Your task to perform on an android device: toggle translation in the chrome app Image 0: 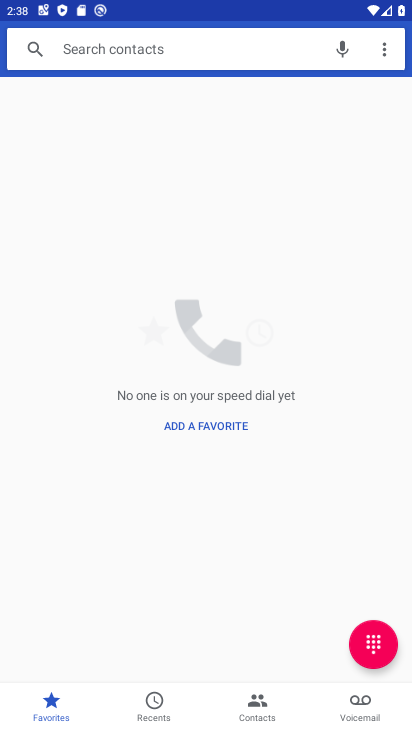
Step 0: press home button
Your task to perform on an android device: toggle translation in the chrome app Image 1: 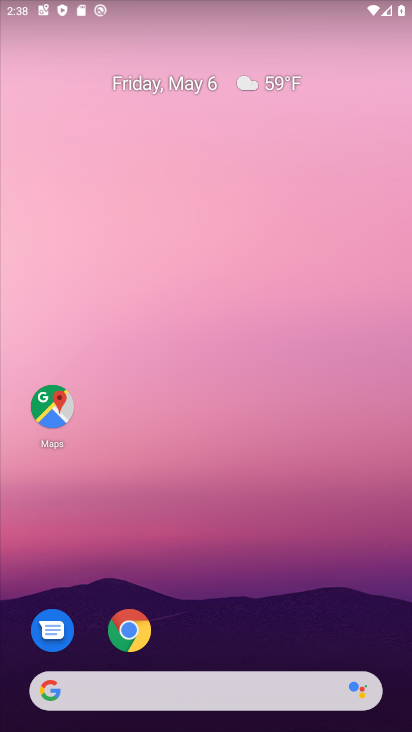
Step 1: click (126, 630)
Your task to perform on an android device: toggle translation in the chrome app Image 2: 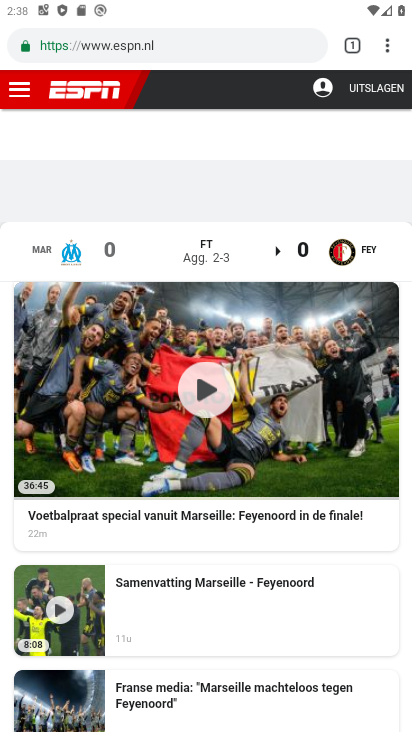
Step 2: click (386, 48)
Your task to perform on an android device: toggle translation in the chrome app Image 3: 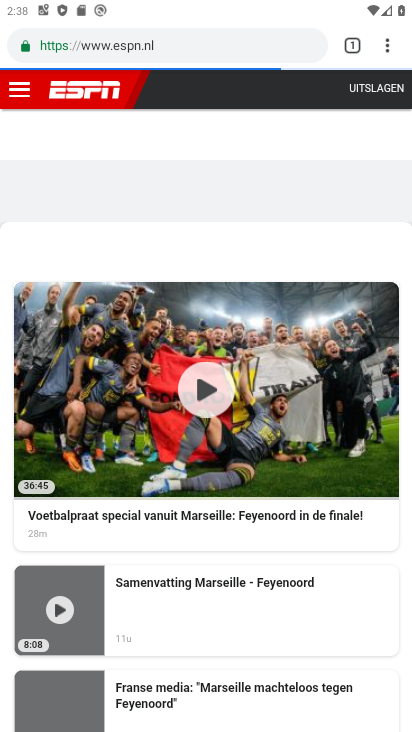
Step 3: click (389, 43)
Your task to perform on an android device: toggle translation in the chrome app Image 4: 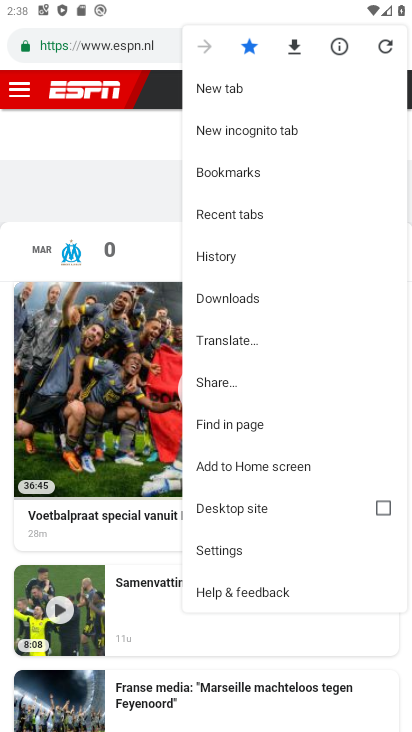
Step 4: click (246, 544)
Your task to perform on an android device: toggle translation in the chrome app Image 5: 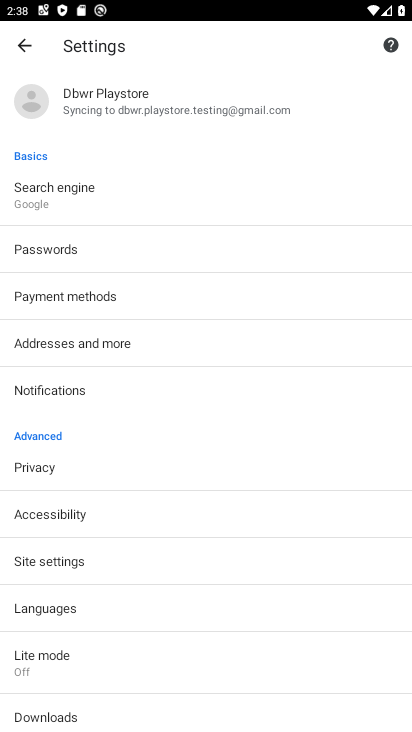
Step 5: click (97, 603)
Your task to perform on an android device: toggle translation in the chrome app Image 6: 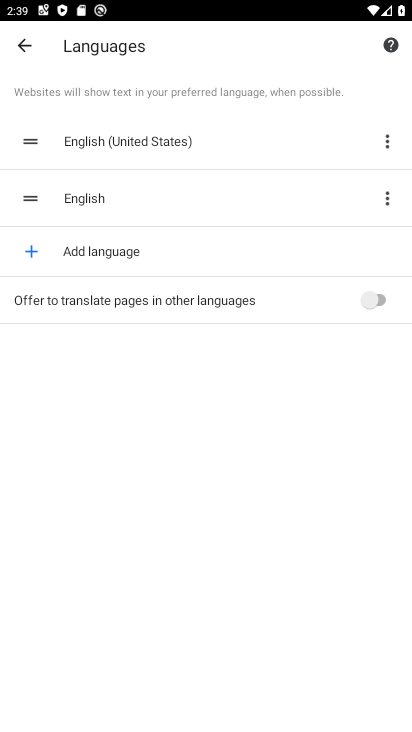
Step 6: click (379, 295)
Your task to perform on an android device: toggle translation in the chrome app Image 7: 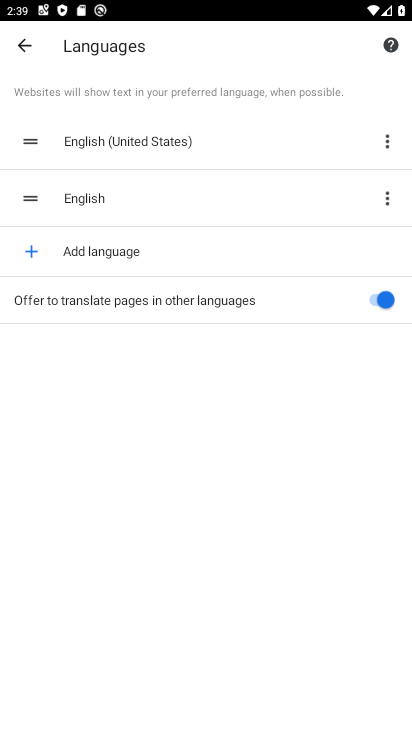
Step 7: task complete